Your task to perform on an android device: Open Google Image 0: 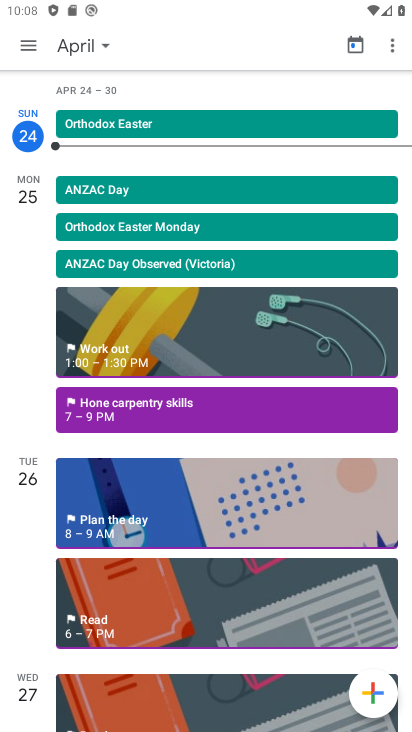
Step 0: press back button
Your task to perform on an android device: Open Google Image 1: 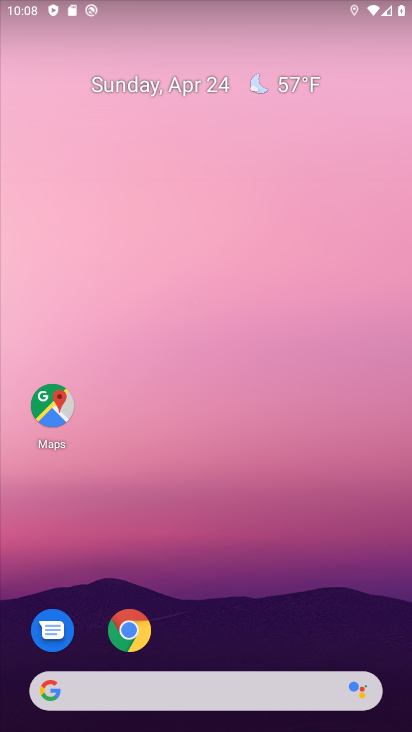
Step 1: drag from (225, 603) to (193, 20)
Your task to perform on an android device: Open Google Image 2: 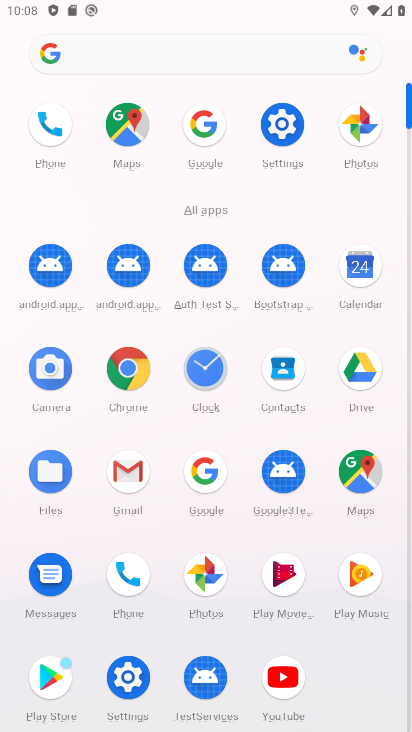
Step 2: click (200, 121)
Your task to perform on an android device: Open Google Image 3: 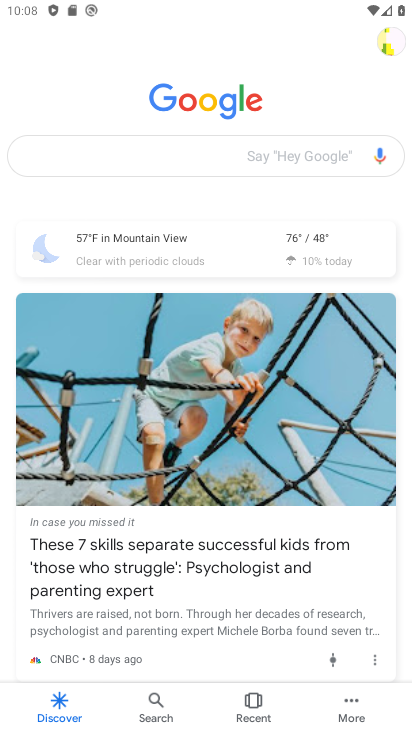
Step 3: task complete